Your task to perform on an android device: Play the last video I watched on Youtube Image 0: 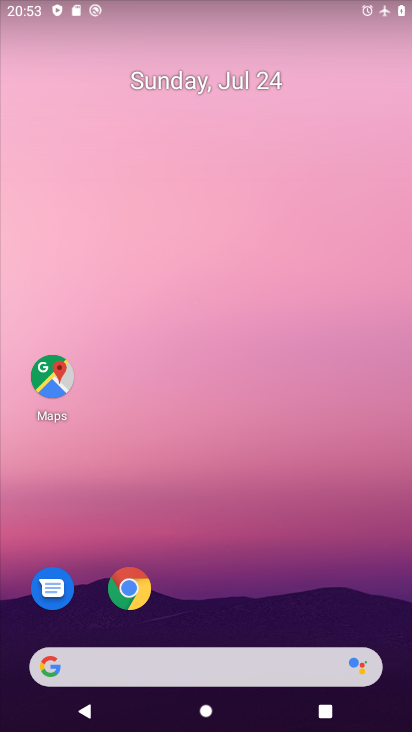
Step 0: drag from (229, 611) to (216, 160)
Your task to perform on an android device: Play the last video I watched on Youtube Image 1: 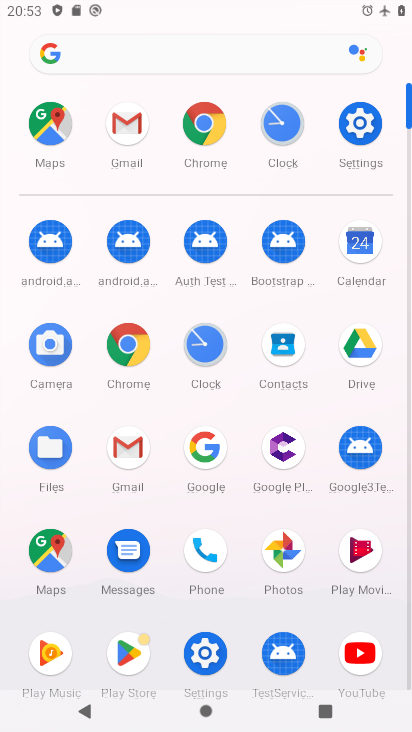
Step 1: click (379, 640)
Your task to perform on an android device: Play the last video I watched on Youtube Image 2: 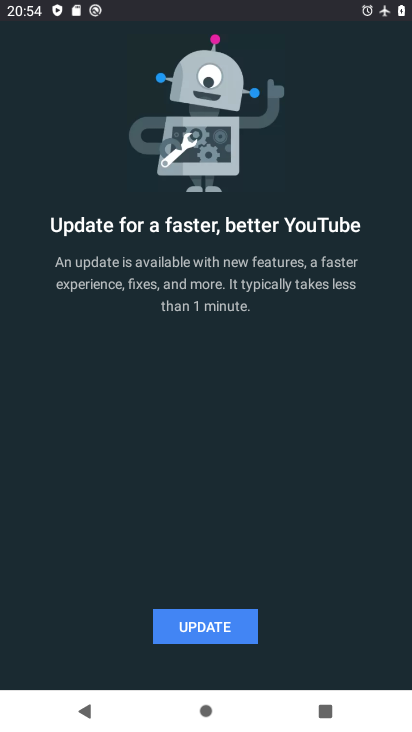
Step 2: task complete